Your task to perform on an android device: turn off wifi Image 0: 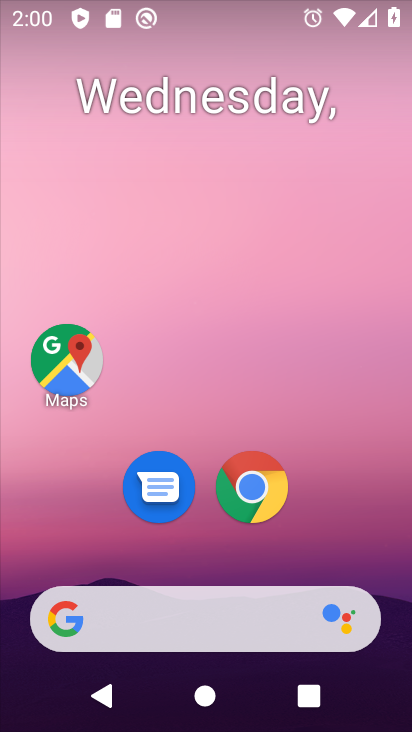
Step 0: drag from (251, 148) to (215, 41)
Your task to perform on an android device: turn off wifi Image 1: 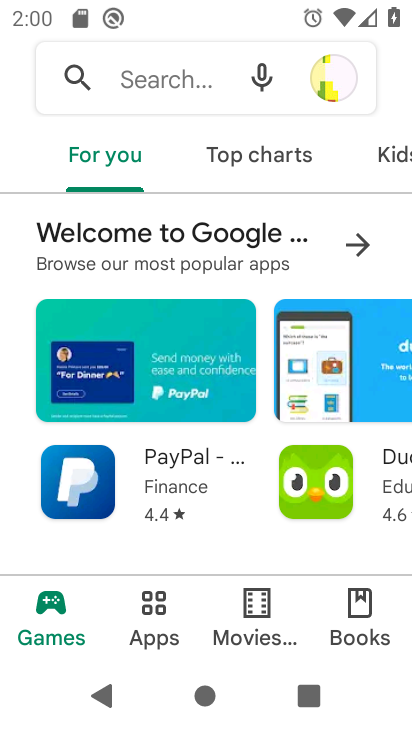
Step 1: press home button
Your task to perform on an android device: turn off wifi Image 2: 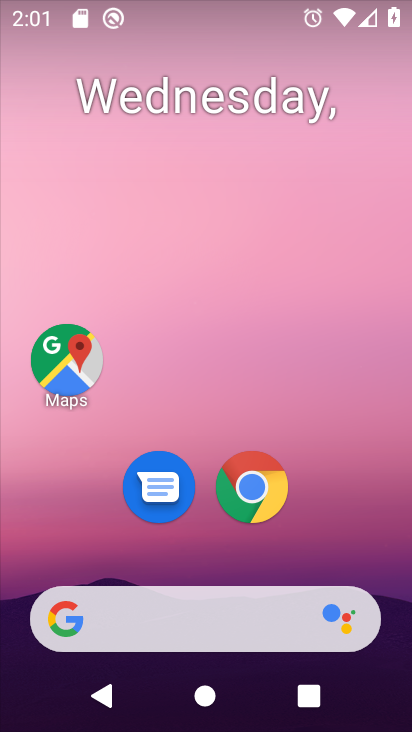
Step 2: drag from (388, 609) to (215, 85)
Your task to perform on an android device: turn off wifi Image 3: 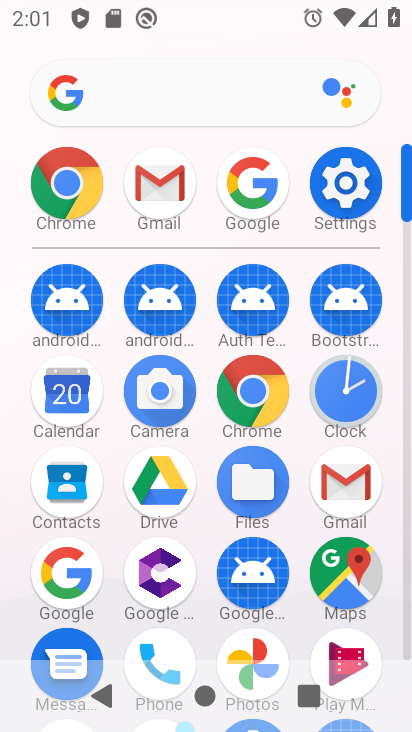
Step 3: drag from (206, 6) to (231, 400)
Your task to perform on an android device: turn off wifi Image 4: 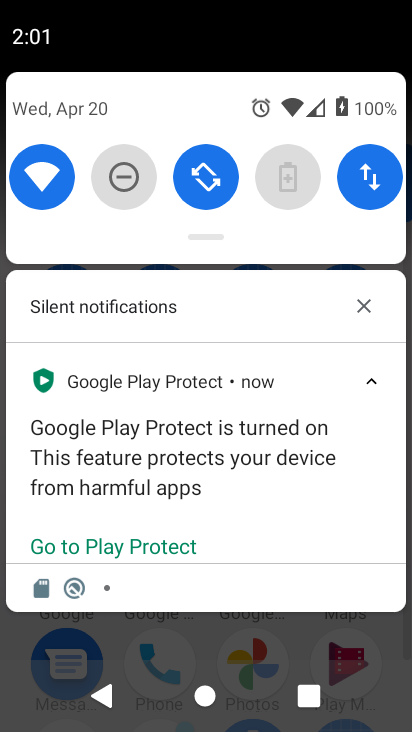
Step 4: click (31, 168)
Your task to perform on an android device: turn off wifi Image 5: 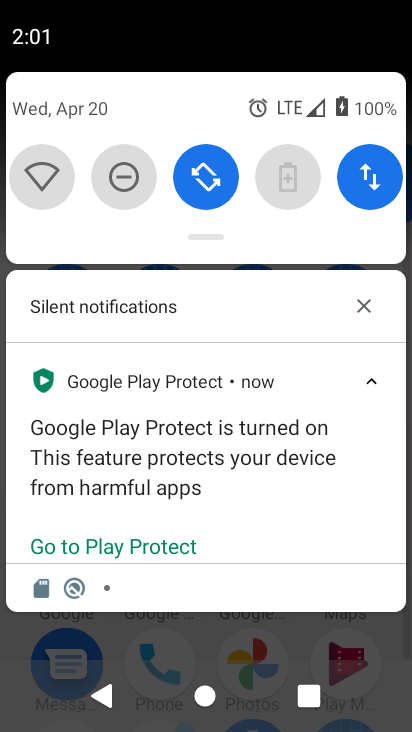
Step 5: task complete